Your task to perform on an android device: Open sound settings Image 0: 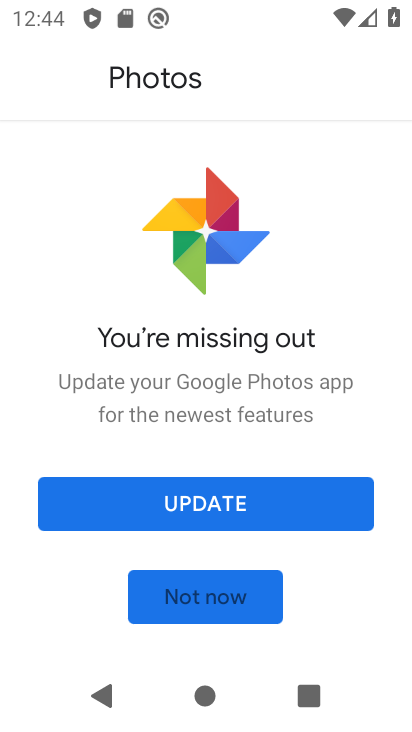
Step 0: press home button
Your task to perform on an android device: Open sound settings Image 1: 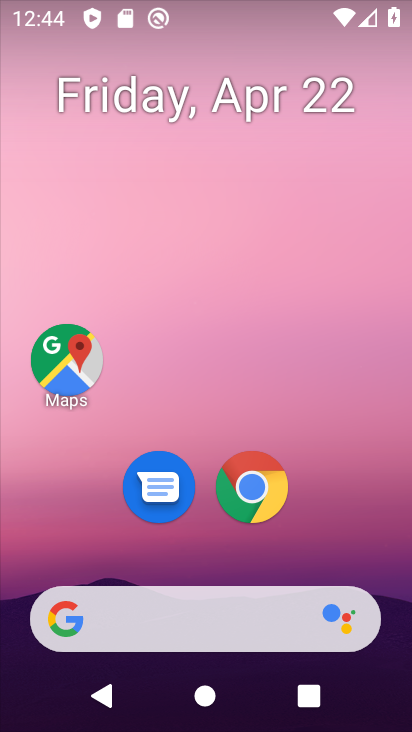
Step 1: drag from (209, 549) to (199, 183)
Your task to perform on an android device: Open sound settings Image 2: 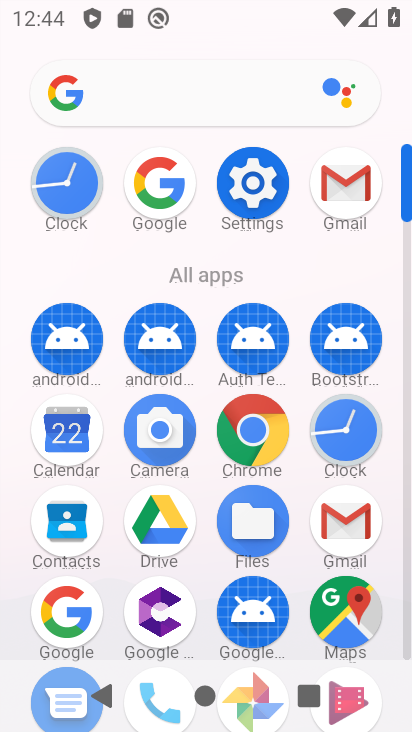
Step 2: click (242, 190)
Your task to perform on an android device: Open sound settings Image 3: 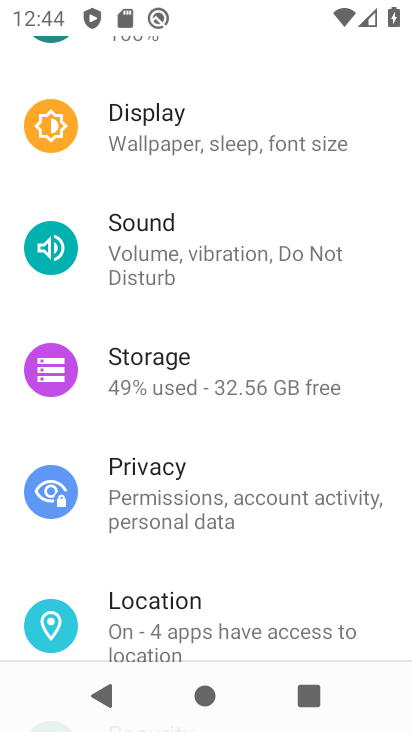
Step 3: click (148, 275)
Your task to perform on an android device: Open sound settings Image 4: 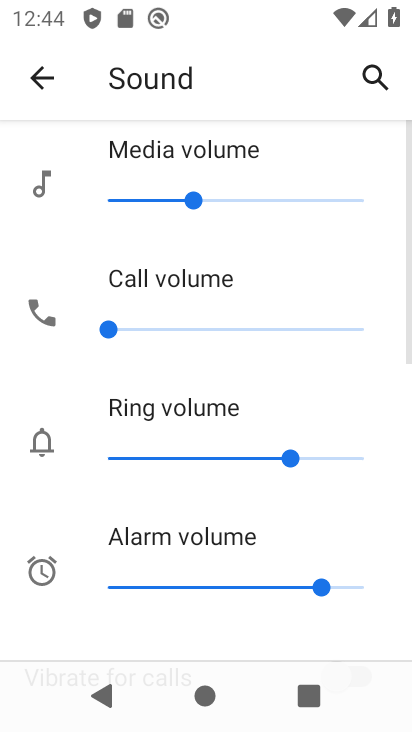
Step 4: task complete